Your task to perform on an android device: What is the recent news? Image 0: 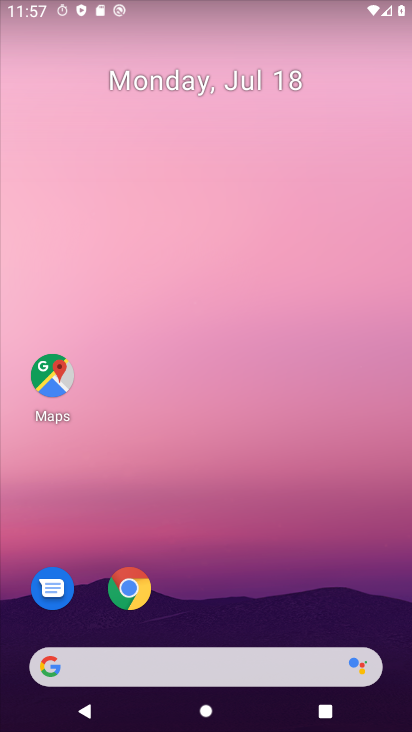
Step 0: drag from (236, 632) to (215, 181)
Your task to perform on an android device: What is the recent news? Image 1: 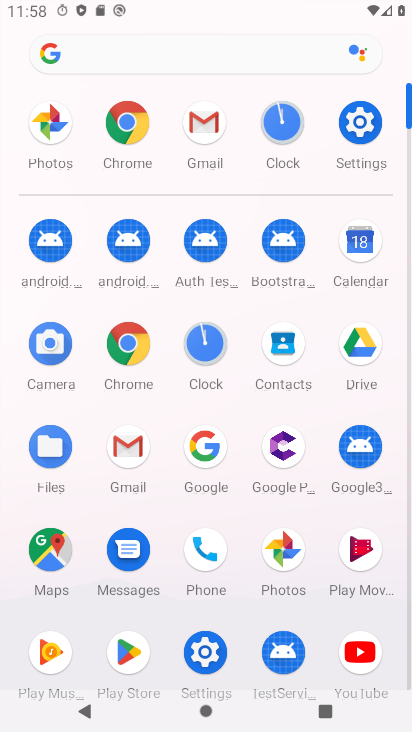
Step 1: click (132, 122)
Your task to perform on an android device: What is the recent news? Image 2: 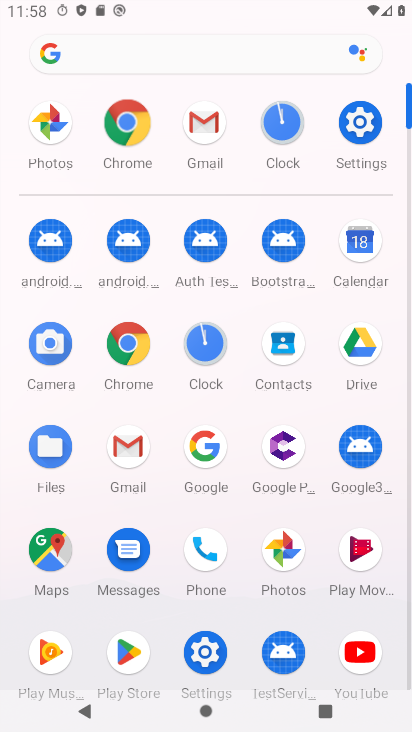
Step 2: click (131, 119)
Your task to perform on an android device: What is the recent news? Image 3: 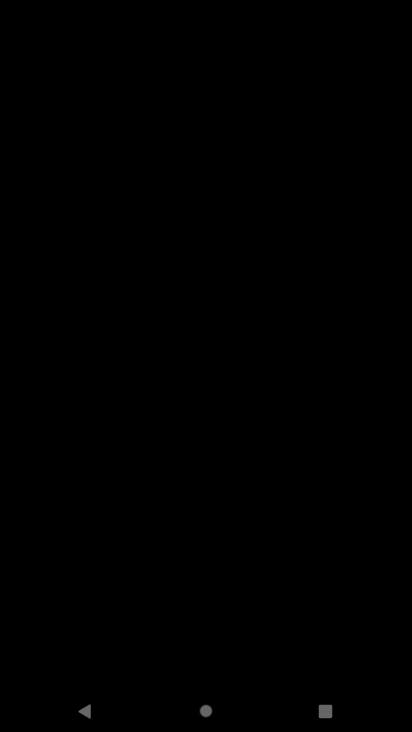
Step 3: click (130, 119)
Your task to perform on an android device: What is the recent news? Image 4: 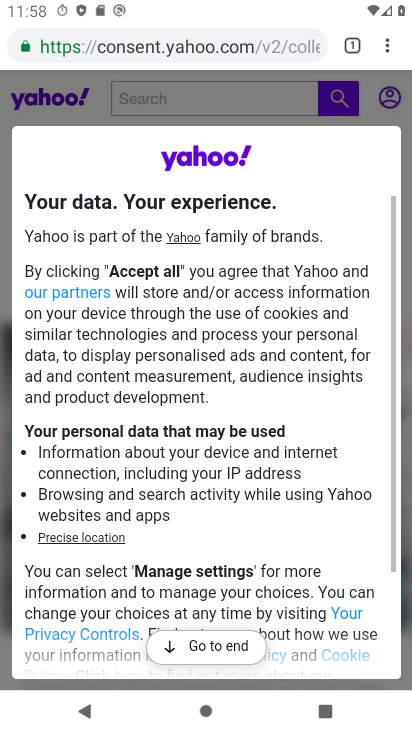
Step 4: drag from (391, 46) to (235, 93)
Your task to perform on an android device: What is the recent news? Image 5: 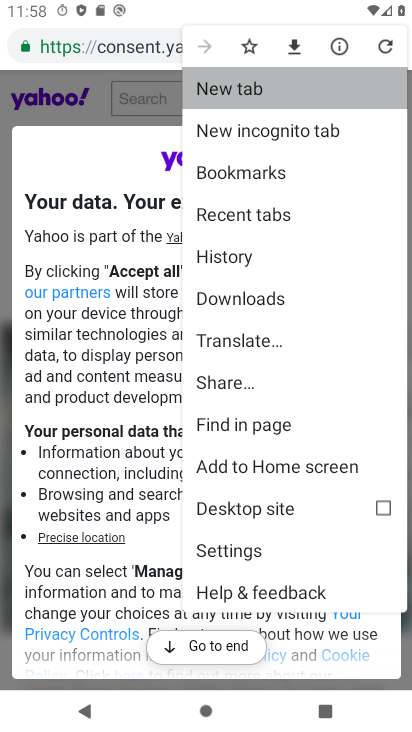
Step 5: click (236, 91)
Your task to perform on an android device: What is the recent news? Image 6: 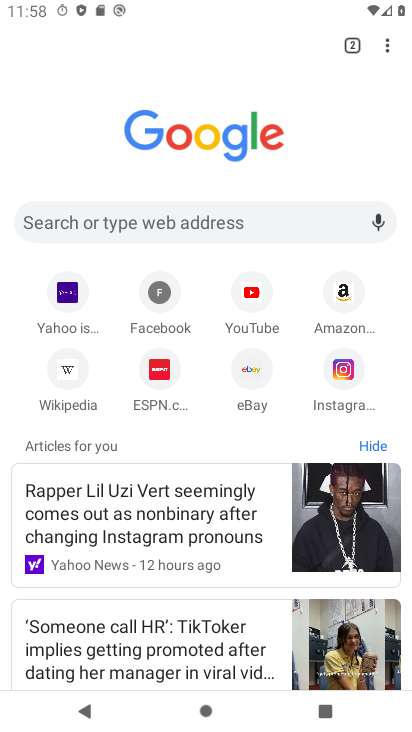
Step 6: task complete